Your task to perform on an android device: manage bookmarks in the chrome app Image 0: 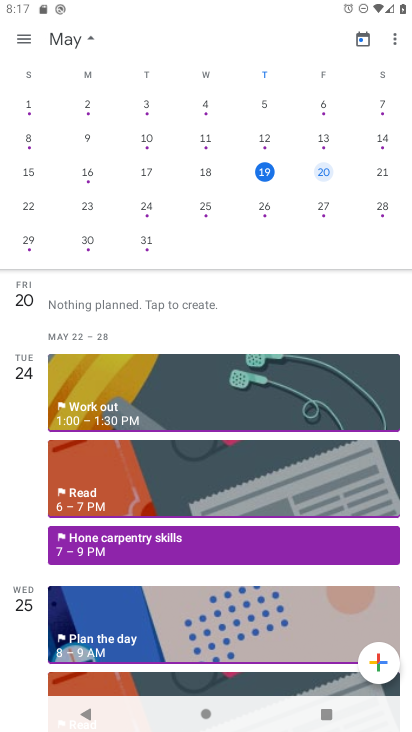
Step 0: press home button
Your task to perform on an android device: manage bookmarks in the chrome app Image 1: 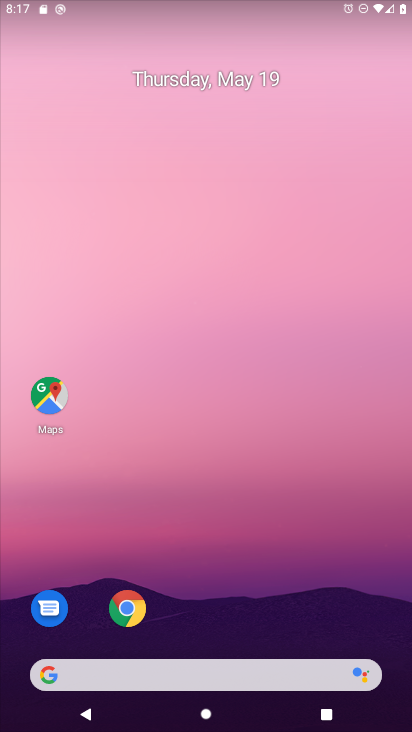
Step 1: click (124, 606)
Your task to perform on an android device: manage bookmarks in the chrome app Image 2: 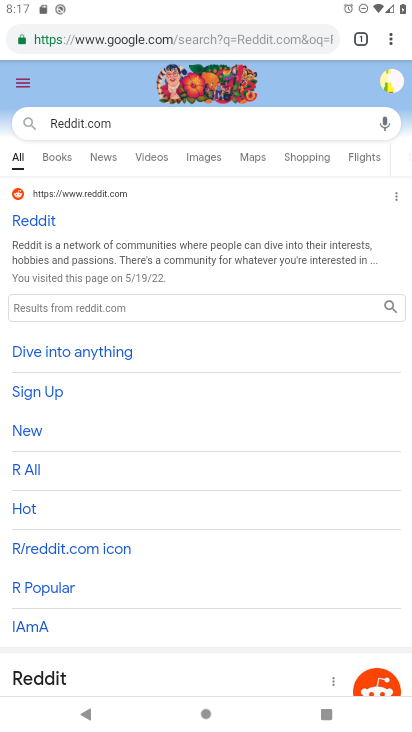
Step 2: click (387, 38)
Your task to perform on an android device: manage bookmarks in the chrome app Image 3: 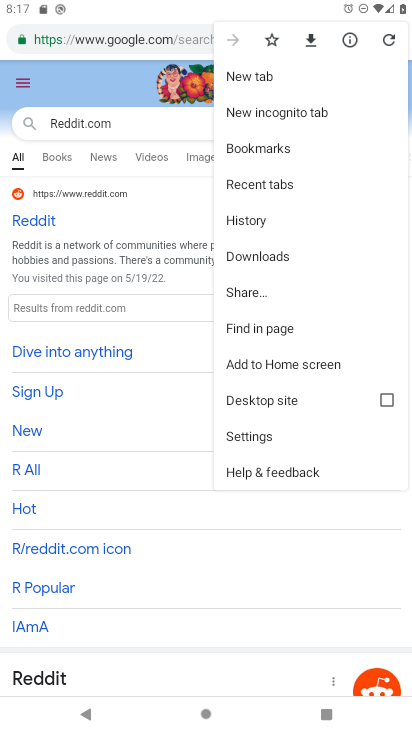
Step 3: click (261, 147)
Your task to perform on an android device: manage bookmarks in the chrome app Image 4: 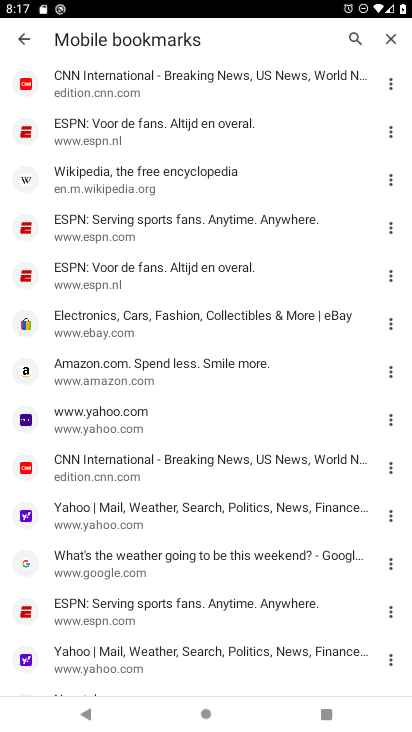
Step 4: click (390, 225)
Your task to perform on an android device: manage bookmarks in the chrome app Image 5: 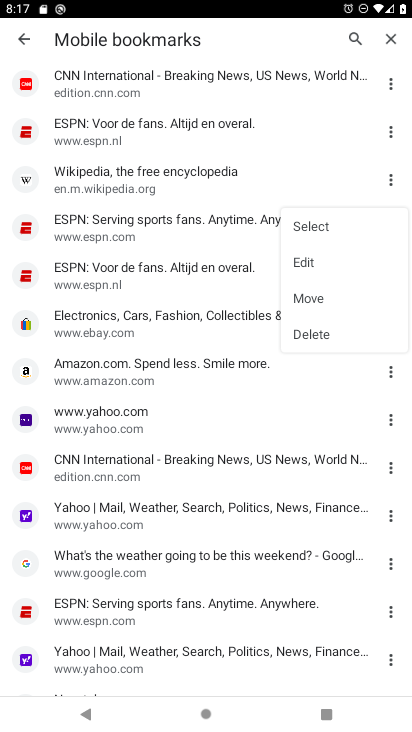
Step 5: click (312, 332)
Your task to perform on an android device: manage bookmarks in the chrome app Image 6: 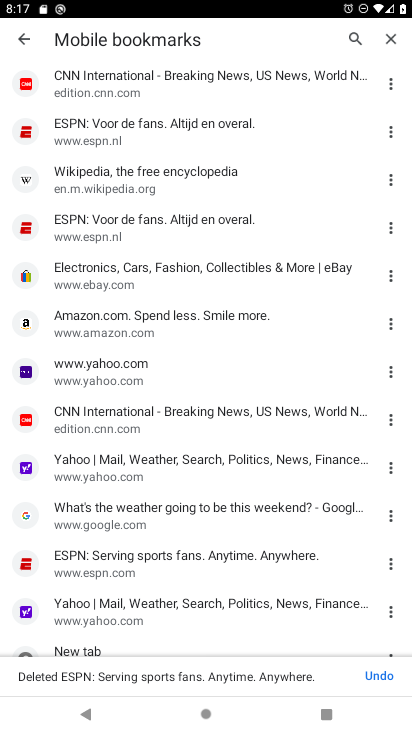
Step 6: task complete